Your task to perform on an android device: open app "Truecaller" (install if not already installed) Image 0: 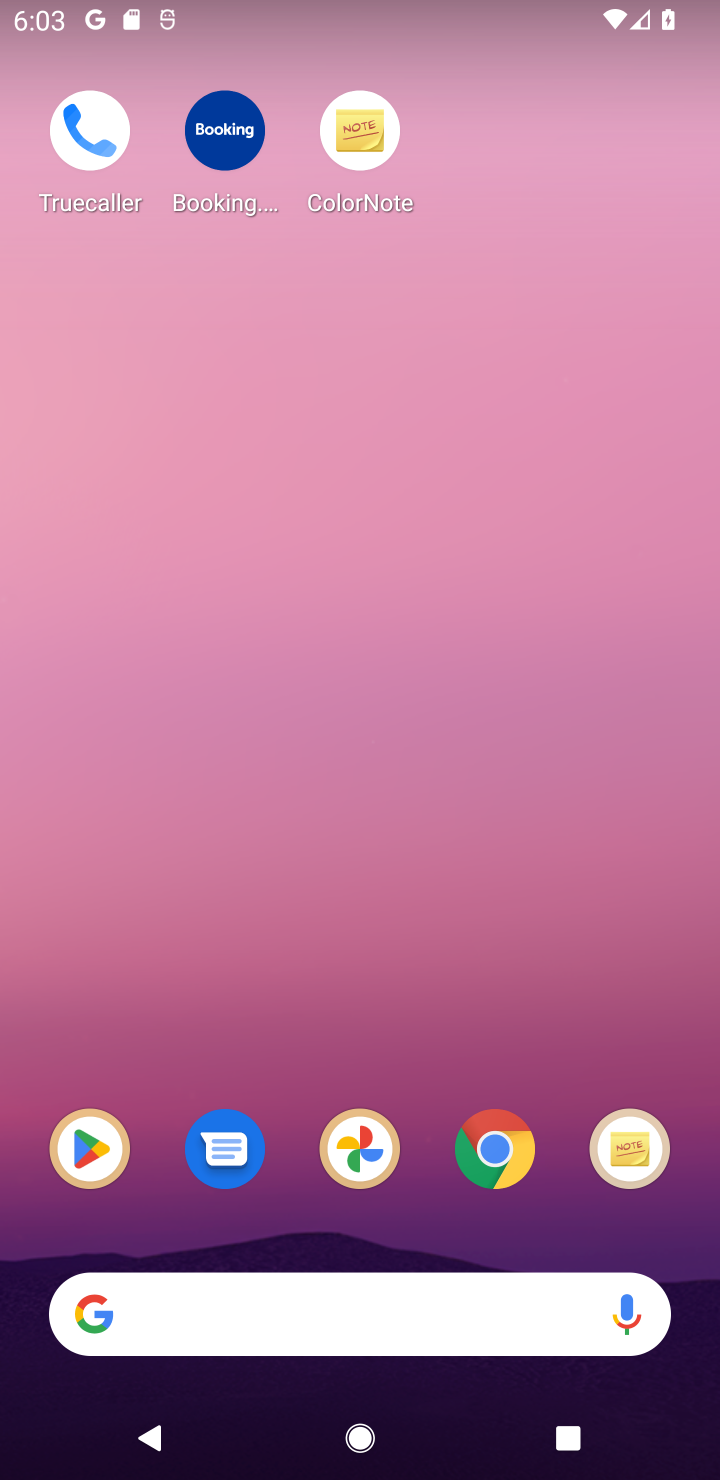
Step 0: press back button
Your task to perform on an android device: open app "Truecaller" (install if not already installed) Image 1: 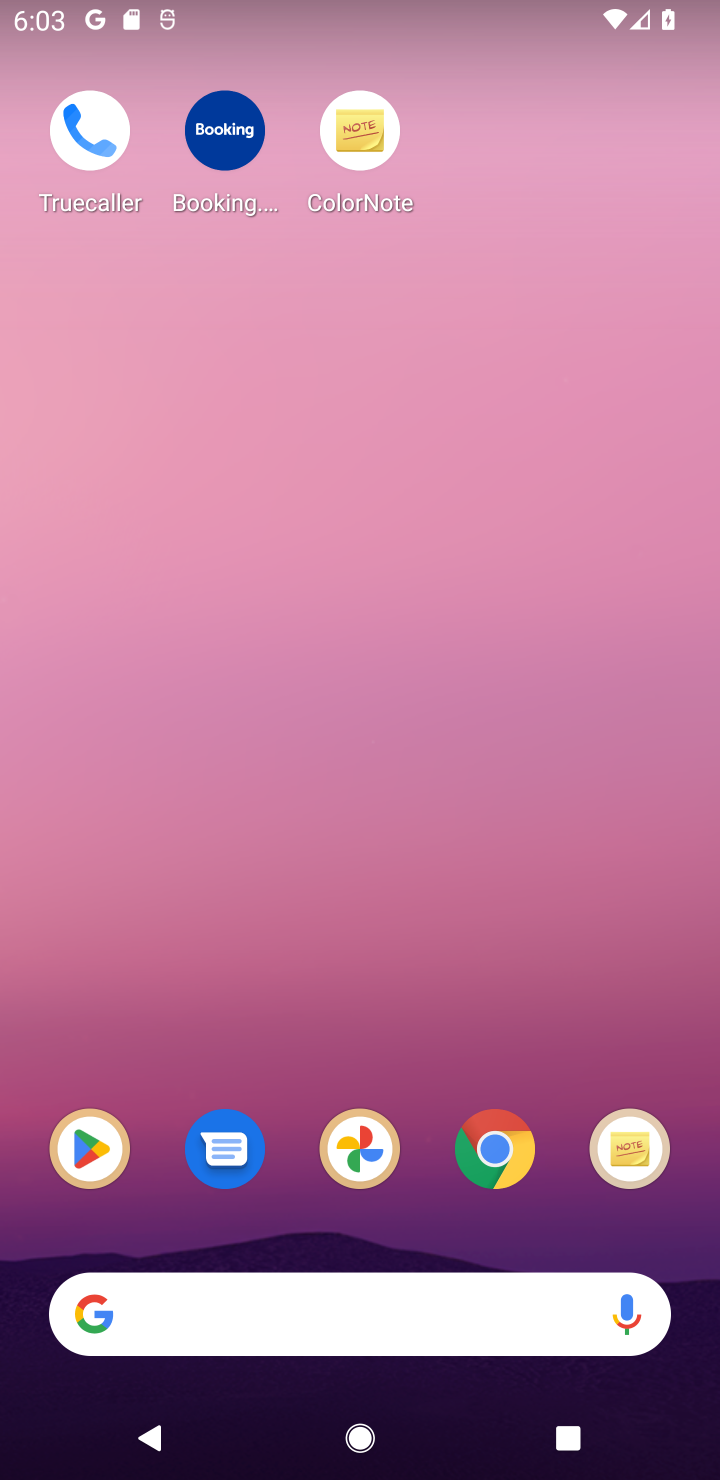
Step 1: drag from (379, 1232) to (370, 91)
Your task to perform on an android device: open app "Truecaller" (install if not already installed) Image 2: 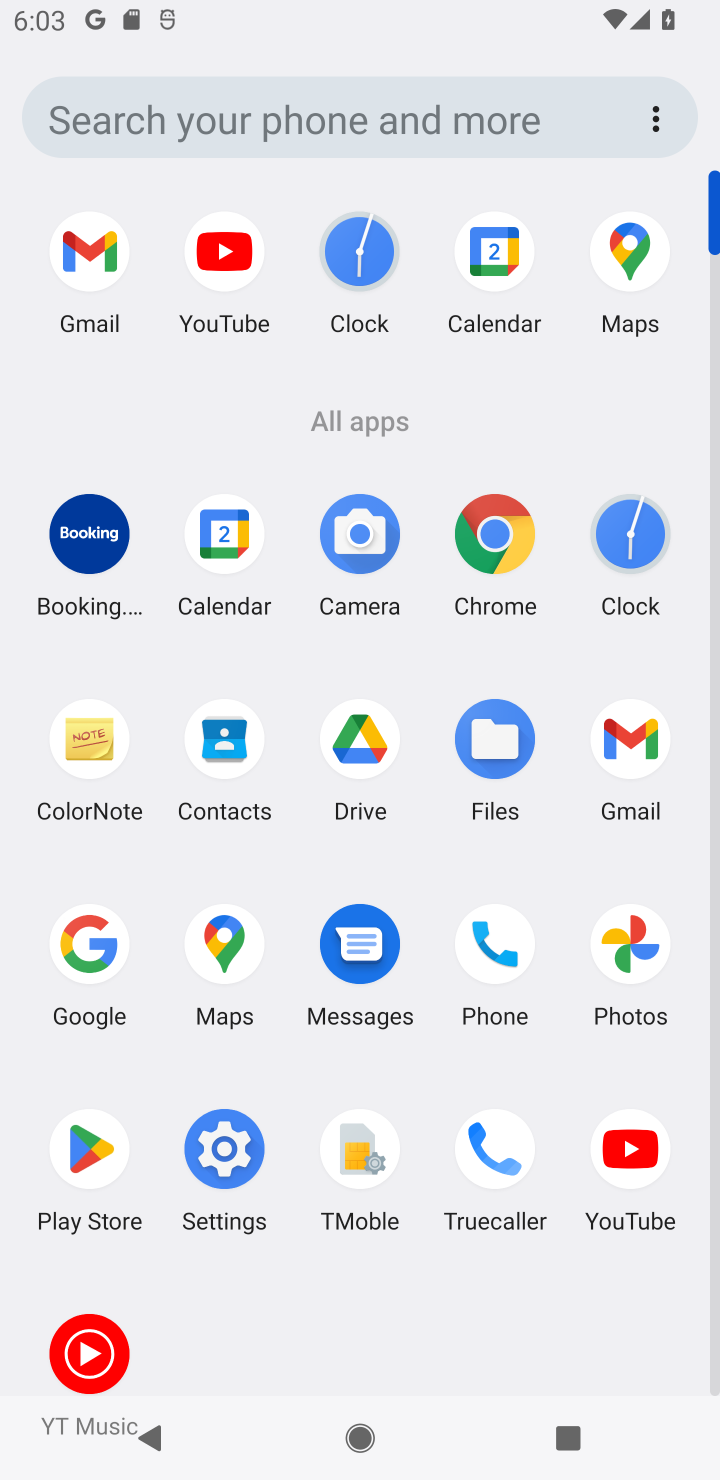
Step 2: click (91, 1165)
Your task to perform on an android device: open app "Truecaller" (install if not already installed) Image 3: 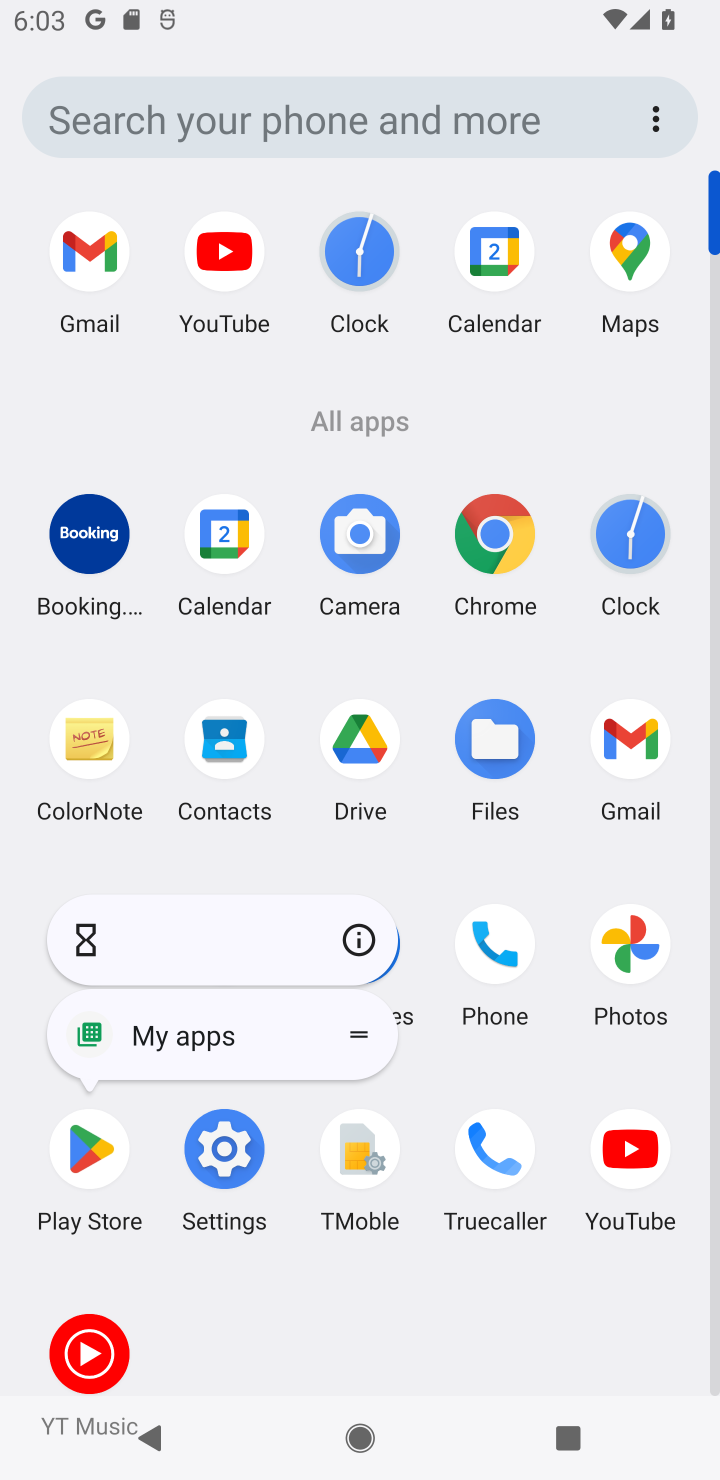
Step 3: click (91, 1165)
Your task to perform on an android device: open app "Truecaller" (install if not already installed) Image 4: 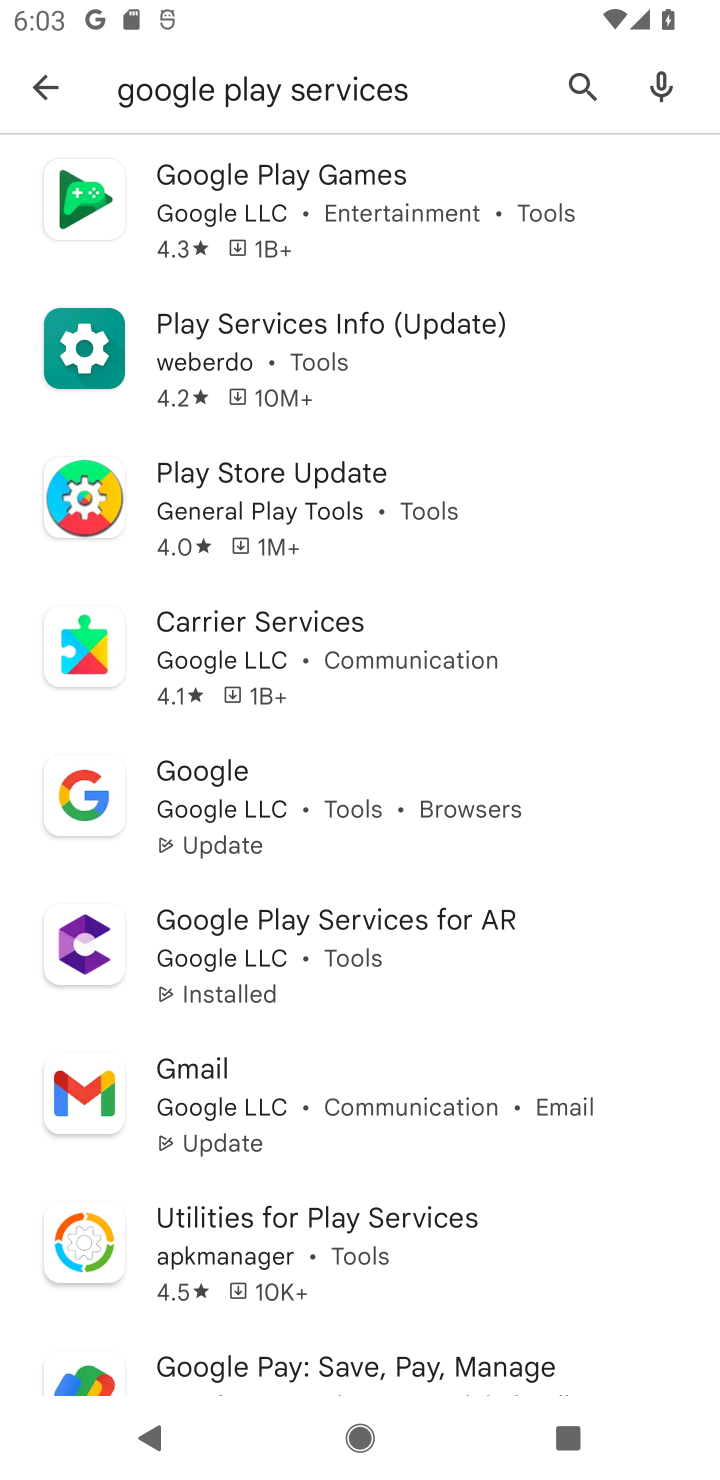
Step 4: click (40, 78)
Your task to perform on an android device: open app "Truecaller" (install if not already installed) Image 5: 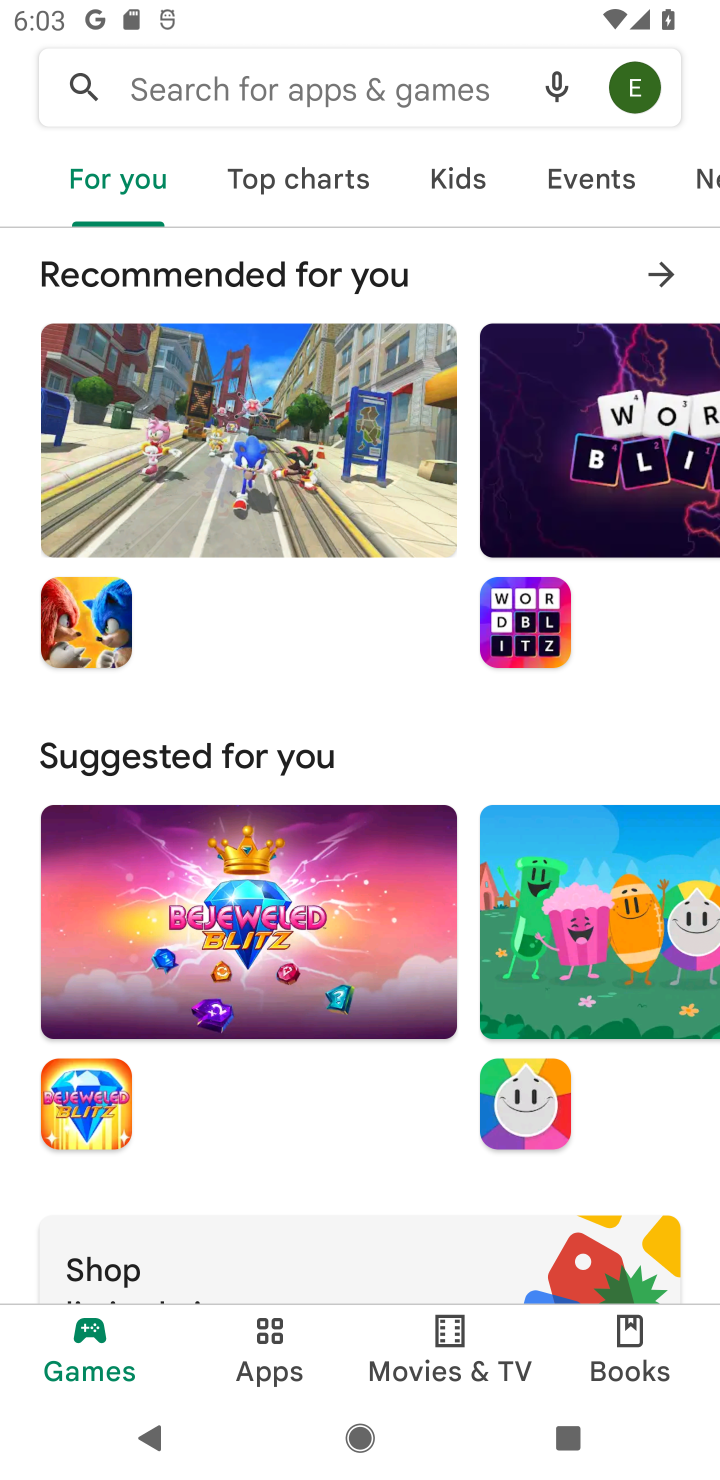
Step 5: click (219, 105)
Your task to perform on an android device: open app "Truecaller" (install if not already installed) Image 6: 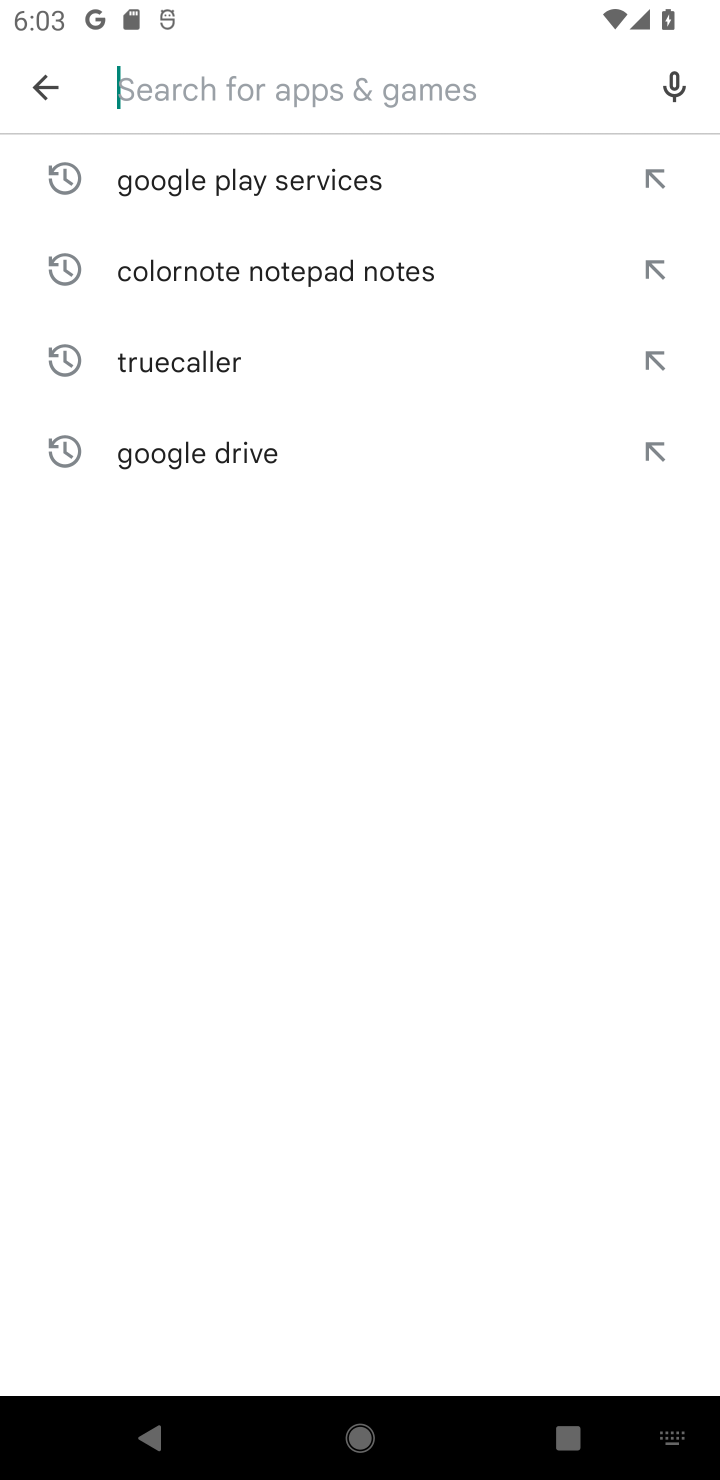
Step 6: drag from (458, 1360) to (296, 1459)
Your task to perform on an android device: open app "Truecaller" (install if not already installed) Image 7: 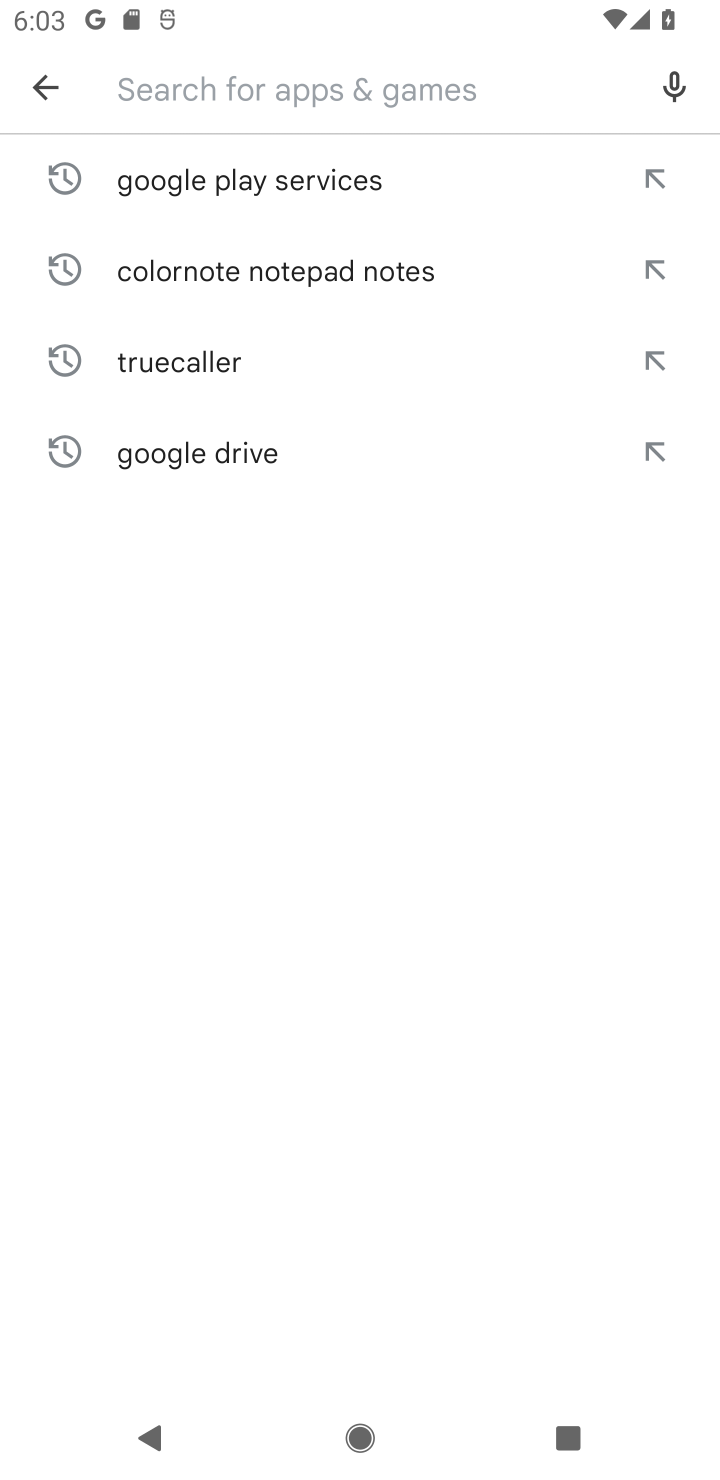
Step 7: type "Truecaller"
Your task to perform on an android device: open app "Truecaller" (install if not already installed) Image 8: 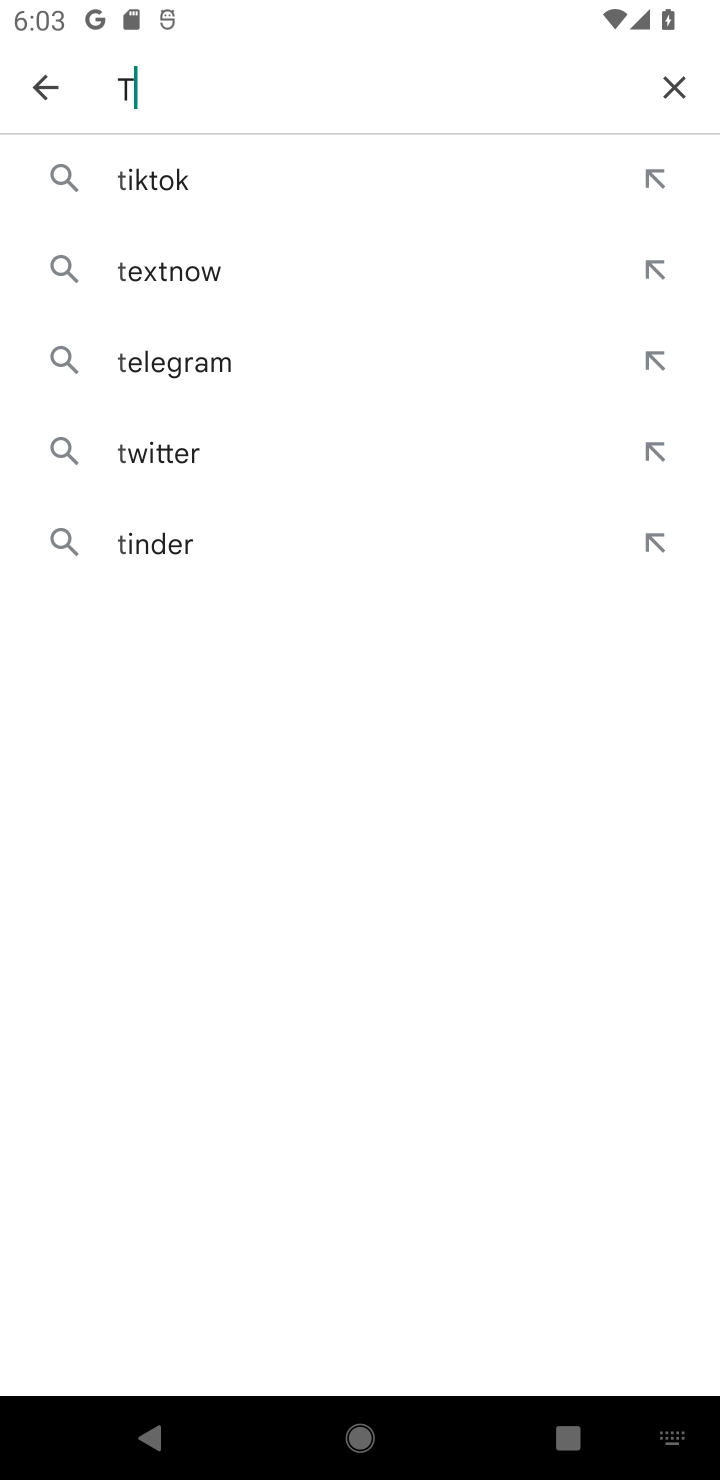
Step 8: type ""
Your task to perform on an android device: open app "Truecaller" (install if not already installed) Image 9: 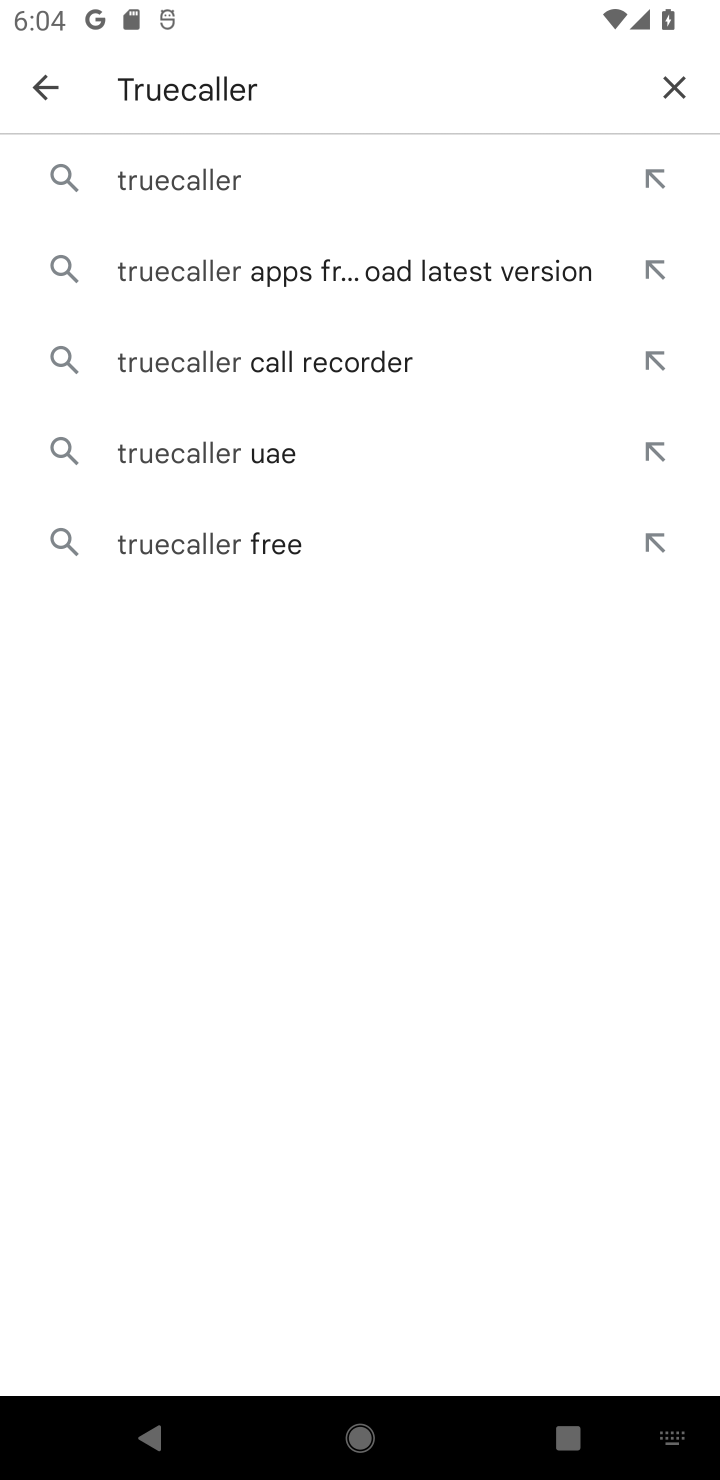
Step 9: click (135, 199)
Your task to perform on an android device: open app "Truecaller" (install if not already installed) Image 10: 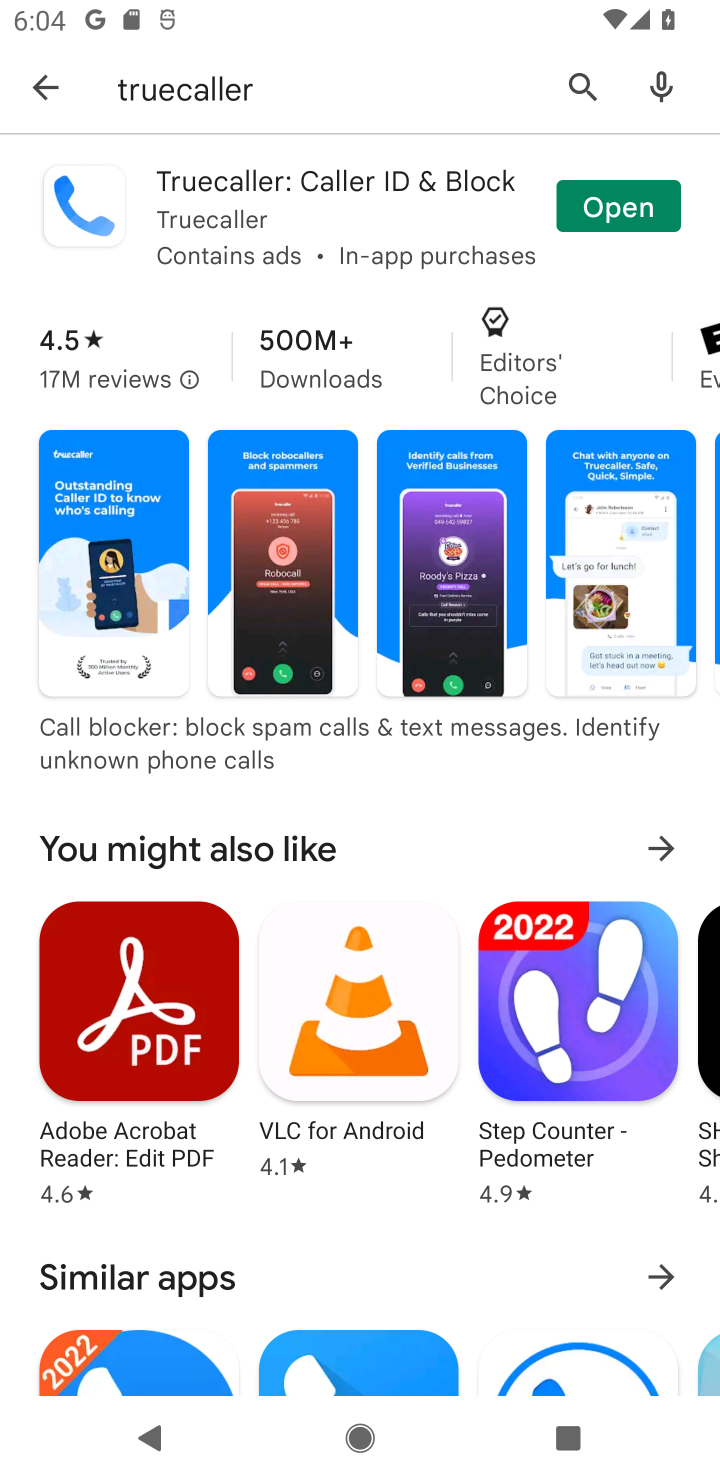
Step 10: click (630, 226)
Your task to perform on an android device: open app "Truecaller" (install if not already installed) Image 11: 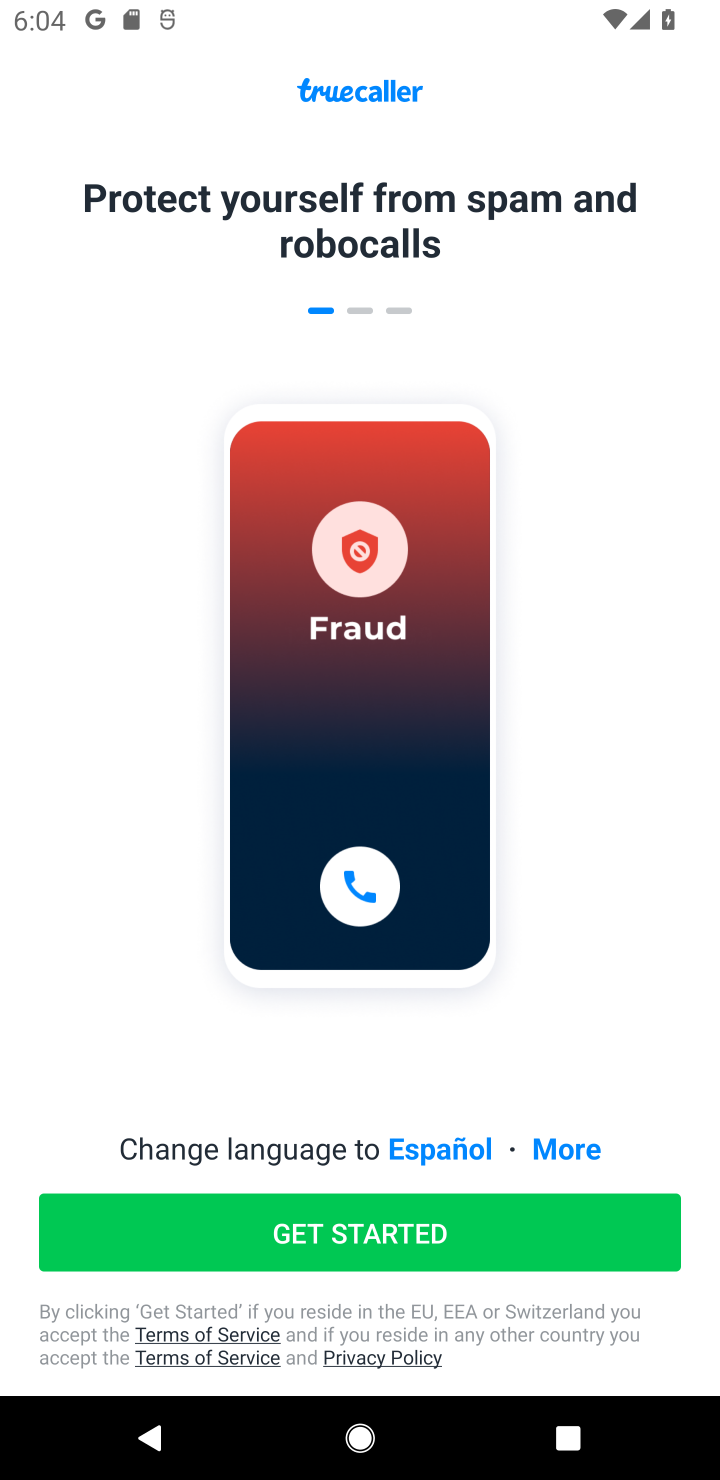
Step 11: task complete